Your task to perform on an android device: Open Chrome and go to settings Image 0: 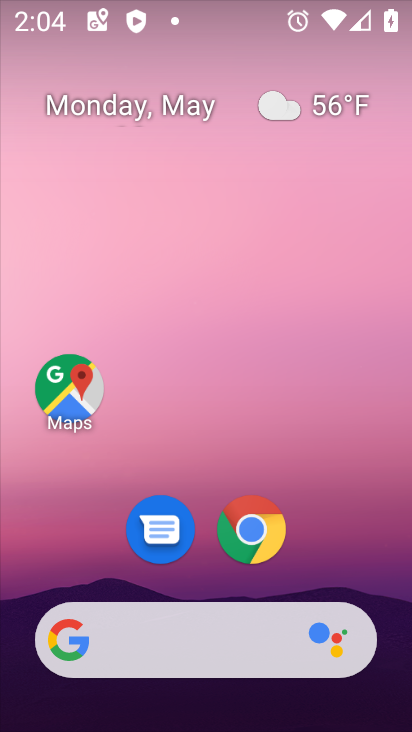
Step 0: click (239, 524)
Your task to perform on an android device: Open Chrome and go to settings Image 1: 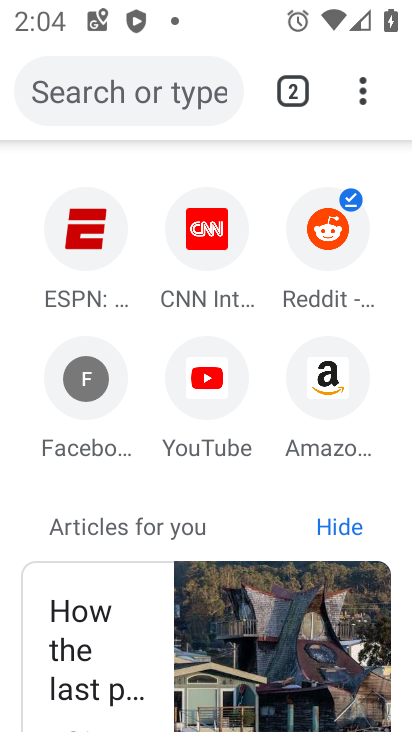
Step 1: click (373, 88)
Your task to perform on an android device: Open Chrome and go to settings Image 2: 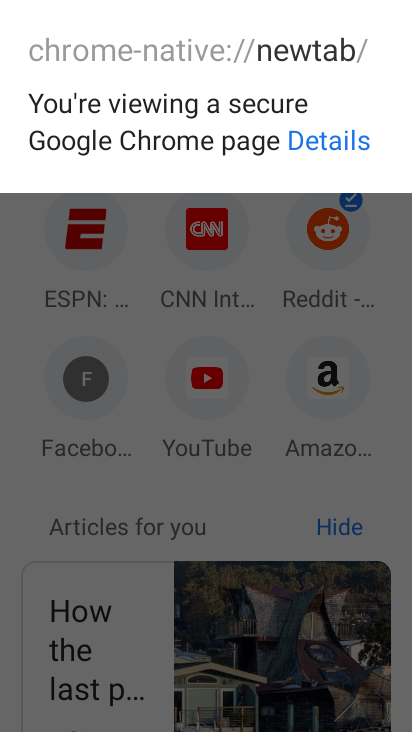
Step 2: click (324, 213)
Your task to perform on an android device: Open Chrome and go to settings Image 3: 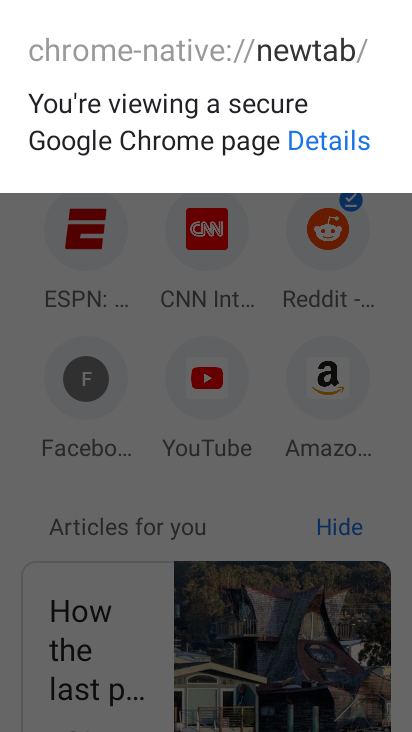
Step 3: click (260, 294)
Your task to perform on an android device: Open Chrome and go to settings Image 4: 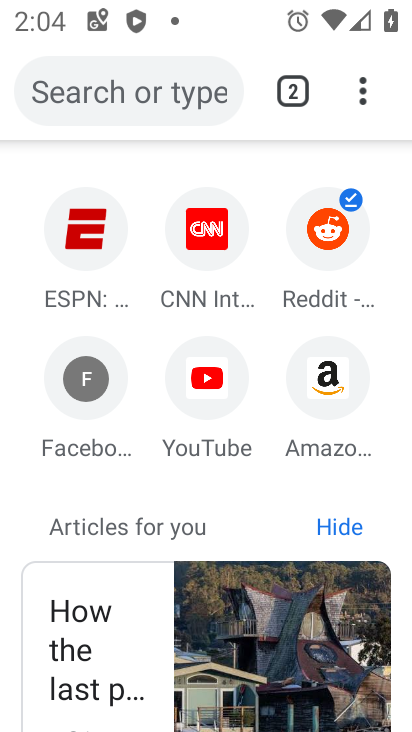
Step 4: click (366, 99)
Your task to perform on an android device: Open Chrome and go to settings Image 5: 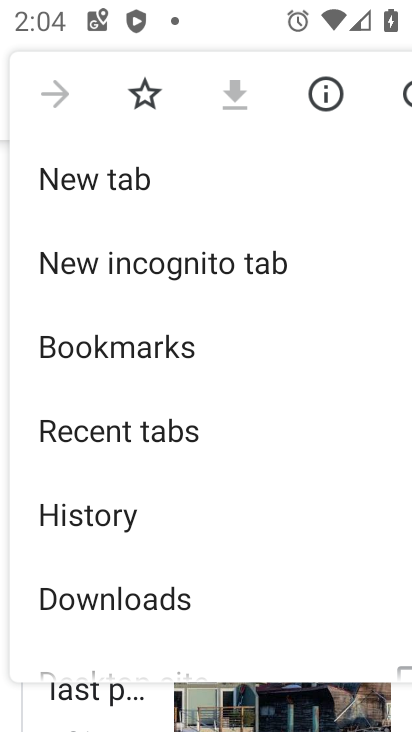
Step 5: drag from (174, 533) to (234, 355)
Your task to perform on an android device: Open Chrome and go to settings Image 6: 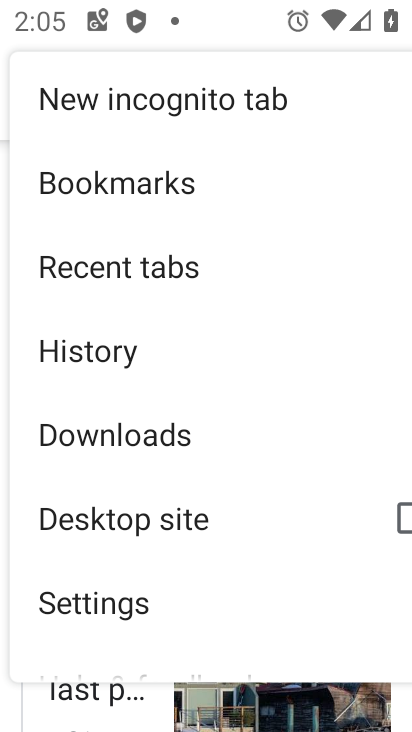
Step 6: drag from (173, 513) to (208, 372)
Your task to perform on an android device: Open Chrome and go to settings Image 7: 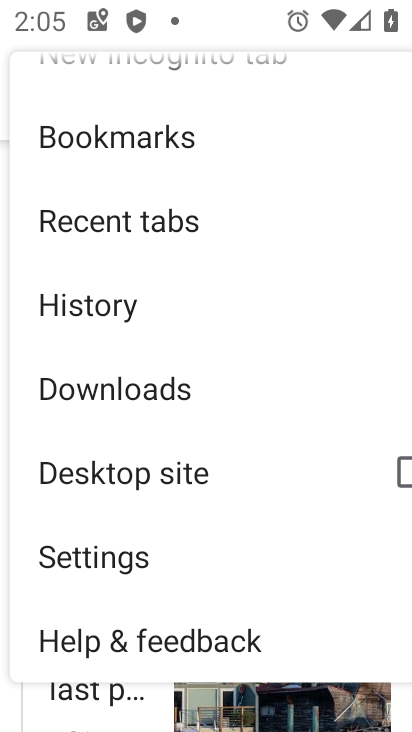
Step 7: click (165, 550)
Your task to perform on an android device: Open Chrome and go to settings Image 8: 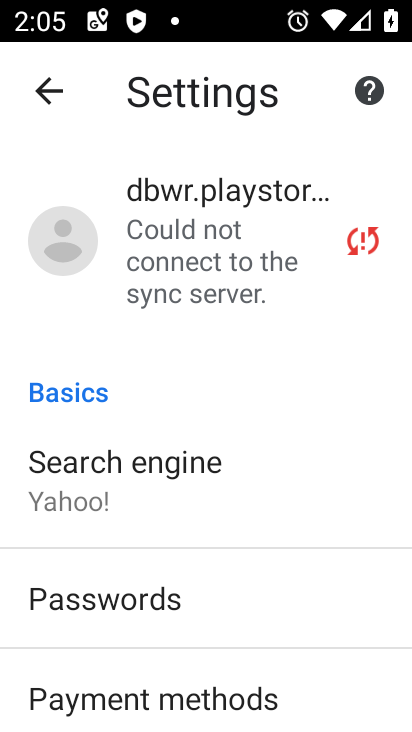
Step 8: task complete